Your task to perform on an android device: Open ESPN.com Image 0: 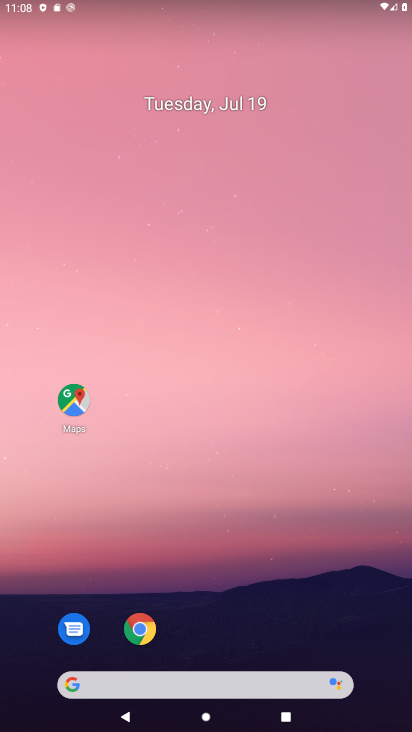
Step 0: drag from (343, 593) to (349, 66)
Your task to perform on an android device: Open ESPN.com Image 1: 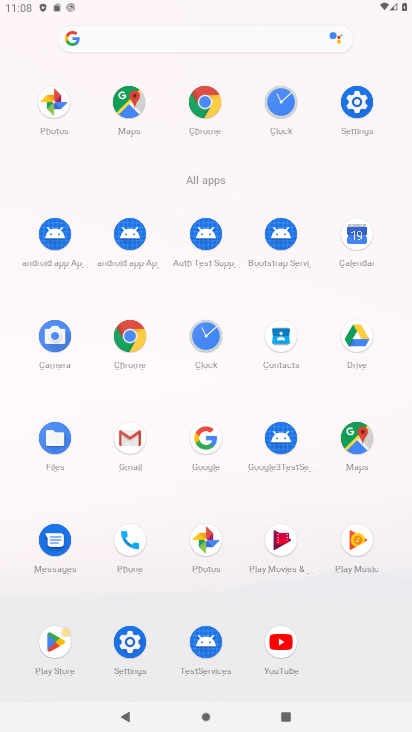
Step 1: click (133, 338)
Your task to perform on an android device: Open ESPN.com Image 2: 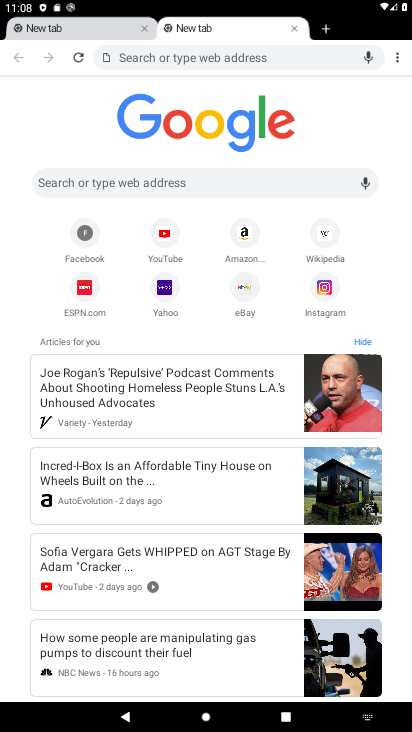
Step 2: click (220, 178)
Your task to perform on an android device: Open ESPN.com Image 3: 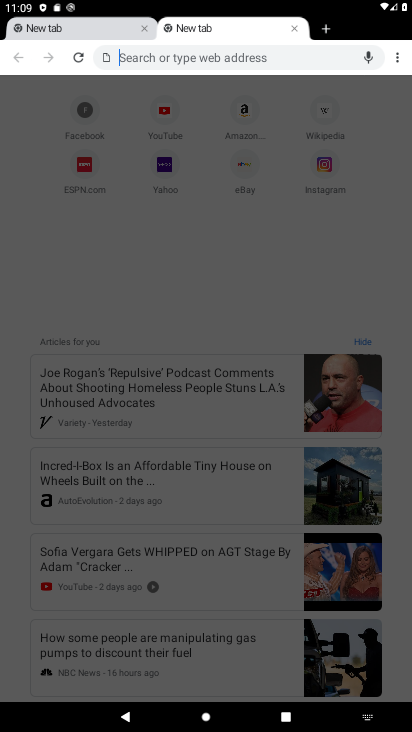
Step 3: type "espn.com"
Your task to perform on an android device: Open ESPN.com Image 4: 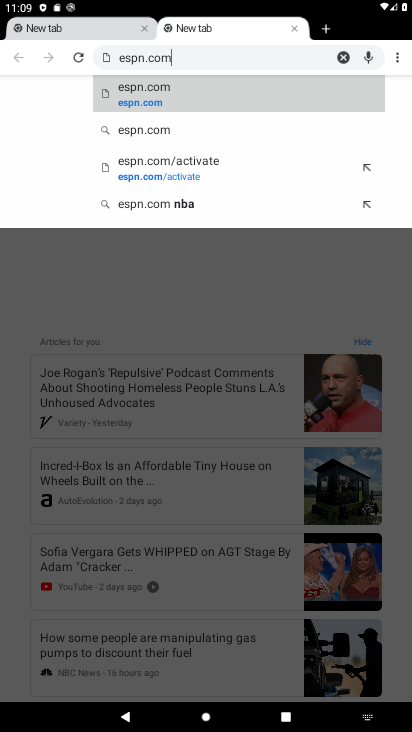
Step 4: click (240, 80)
Your task to perform on an android device: Open ESPN.com Image 5: 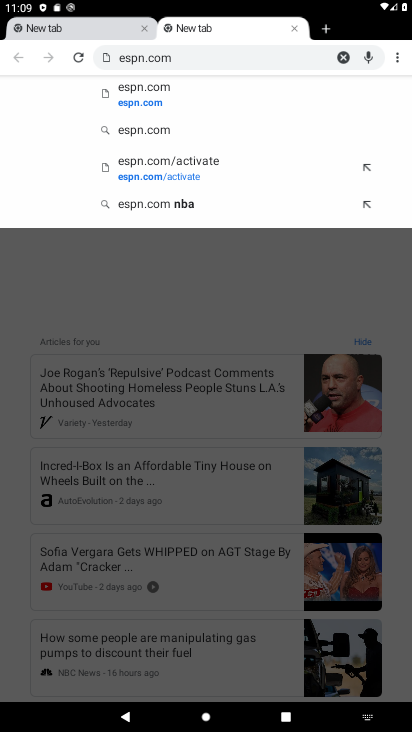
Step 5: click (173, 98)
Your task to perform on an android device: Open ESPN.com Image 6: 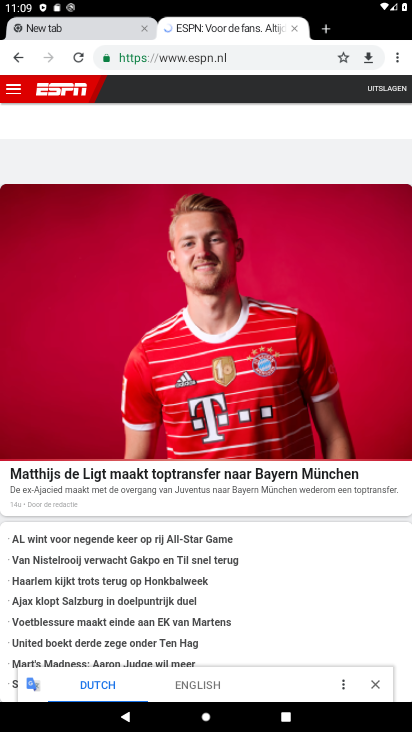
Step 6: task complete